Your task to perform on an android device: Search for sushi restaurants on Maps Image 0: 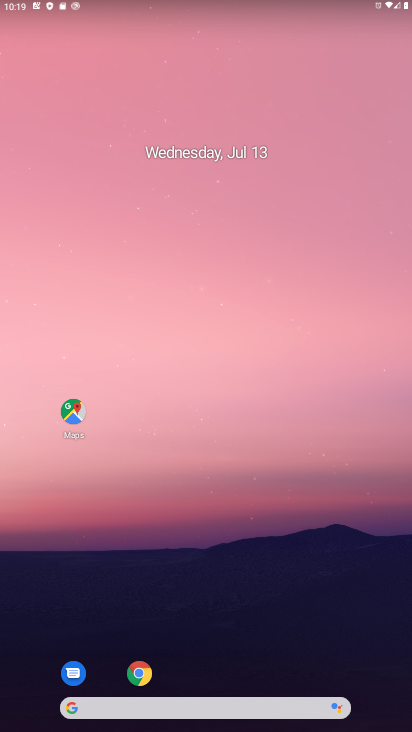
Step 0: click (84, 414)
Your task to perform on an android device: Search for sushi restaurants on Maps Image 1: 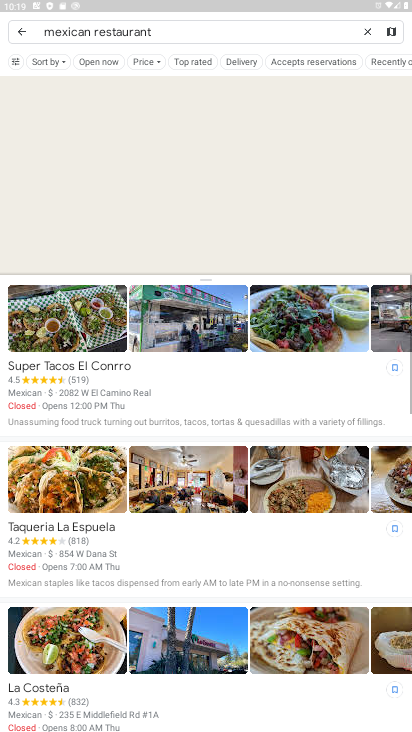
Step 1: click (371, 29)
Your task to perform on an android device: Search for sushi restaurants on Maps Image 2: 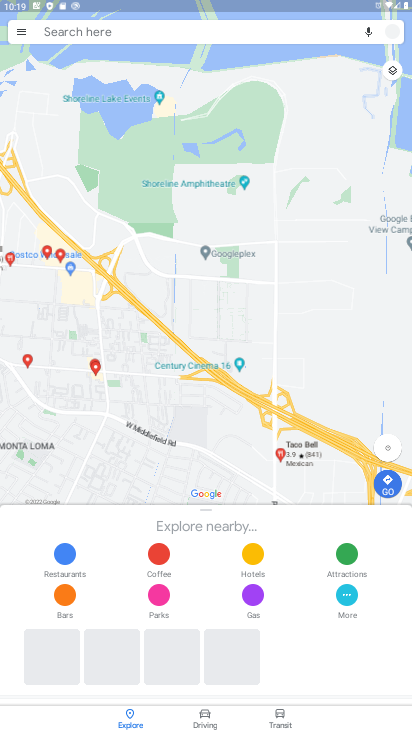
Step 2: click (189, 26)
Your task to perform on an android device: Search for sushi restaurants on Maps Image 3: 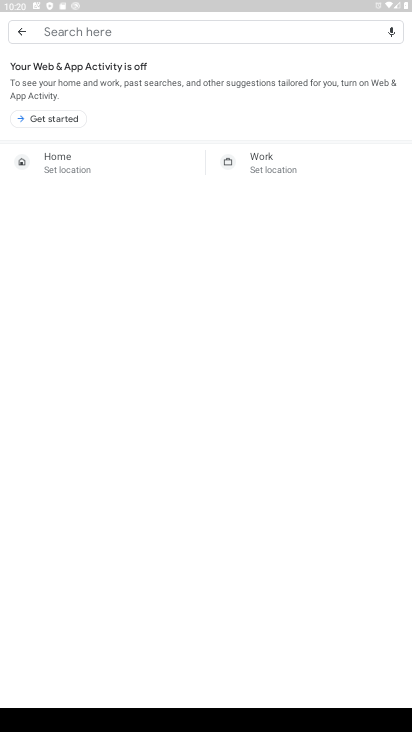
Step 3: type "sushi rerstaurant"
Your task to perform on an android device: Search for sushi restaurants on Maps Image 4: 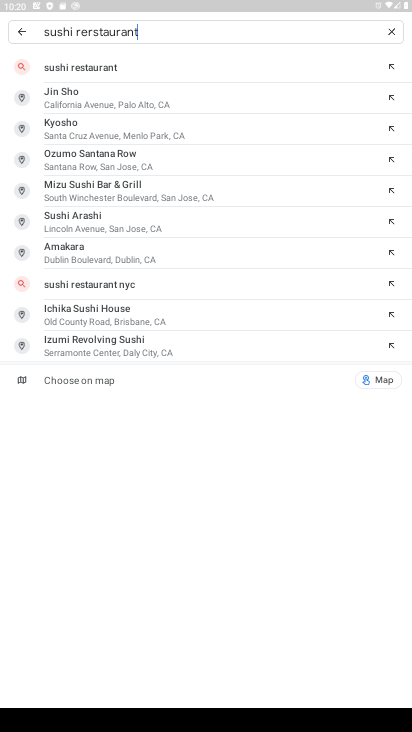
Step 4: click (232, 70)
Your task to perform on an android device: Search for sushi restaurants on Maps Image 5: 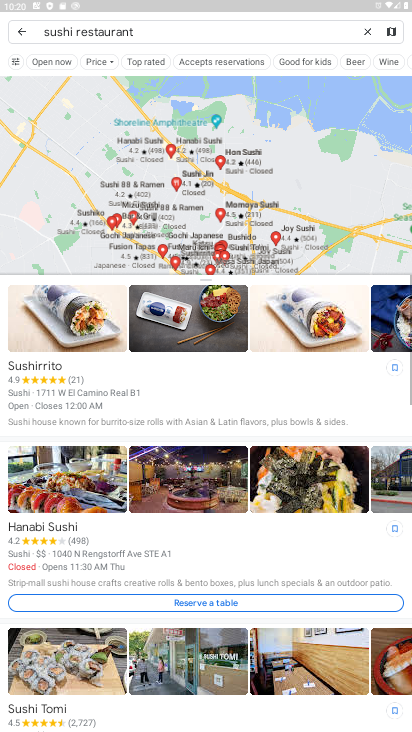
Step 5: task complete